Your task to perform on an android device: Open Yahoo.com Image 0: 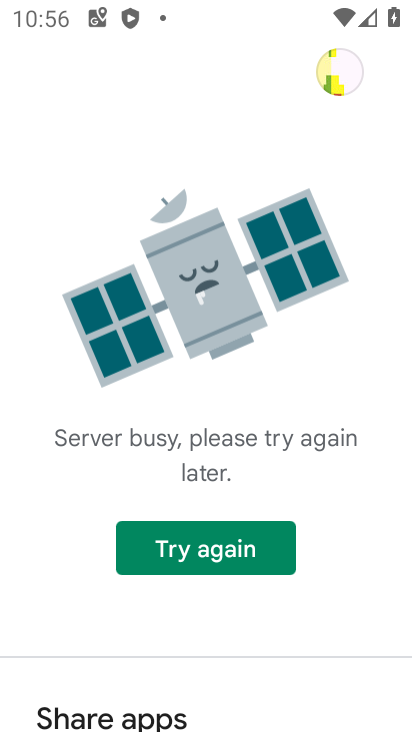
Step 0: press home button
Your task to perform on an android device: Open Yahoo.com Image 1: 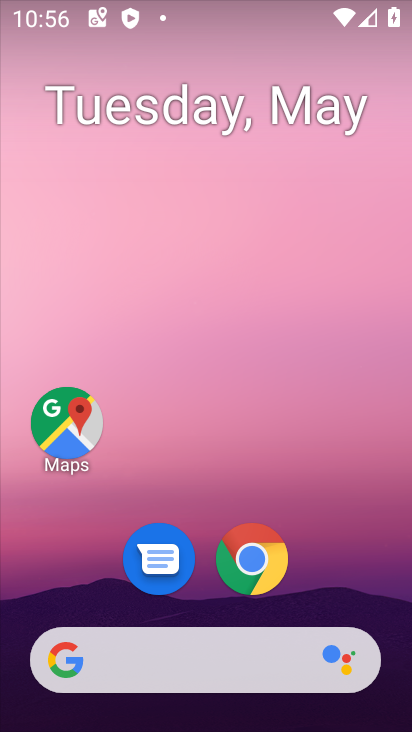
Step 1: click (289, 560)
Your task to perform on an android device: Open Yahoo.com Image 2: 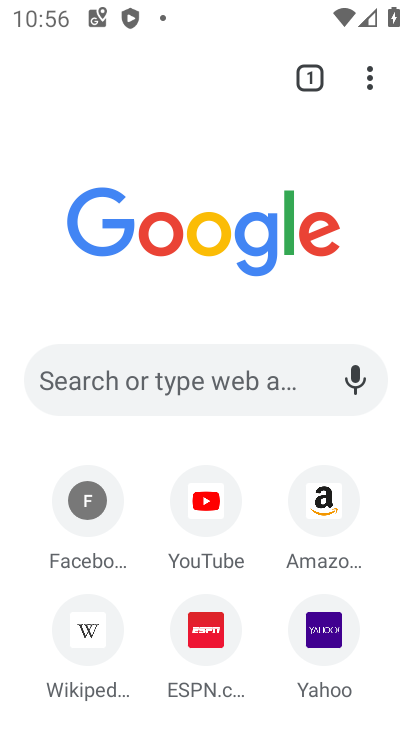
Step 2: click (330, 655)
Your task to perform on an android device: Open Yahoo.com Image 3: 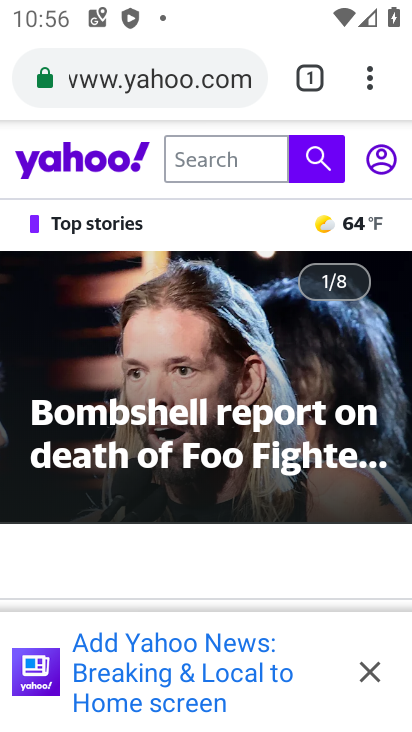
Step 3: task complete